Your task to perform on an android device: Open Google Image 0: 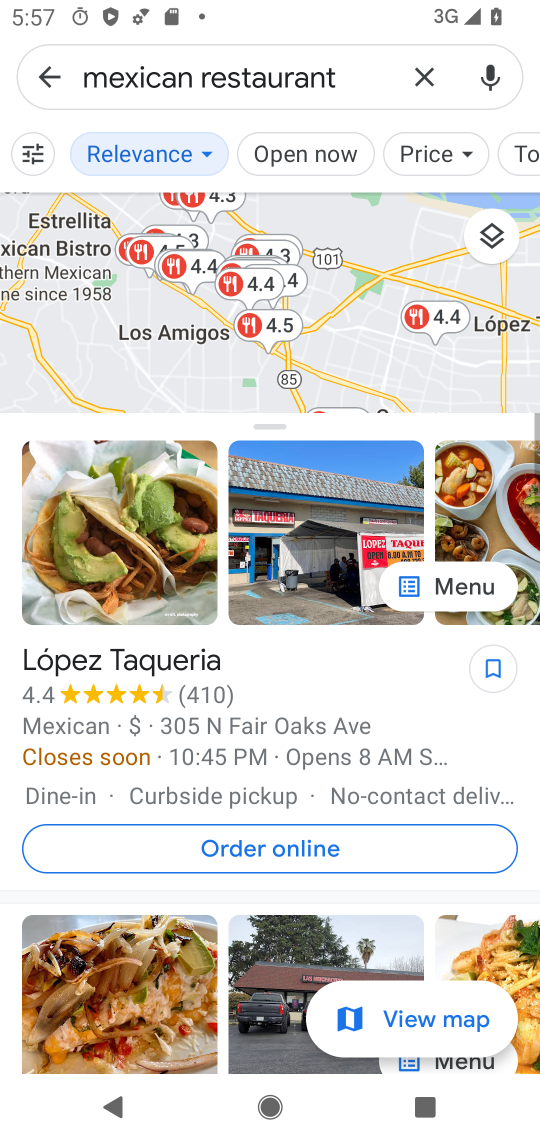
Step 0: press home button
Your task to perform on an android device: Open Google Image 1: 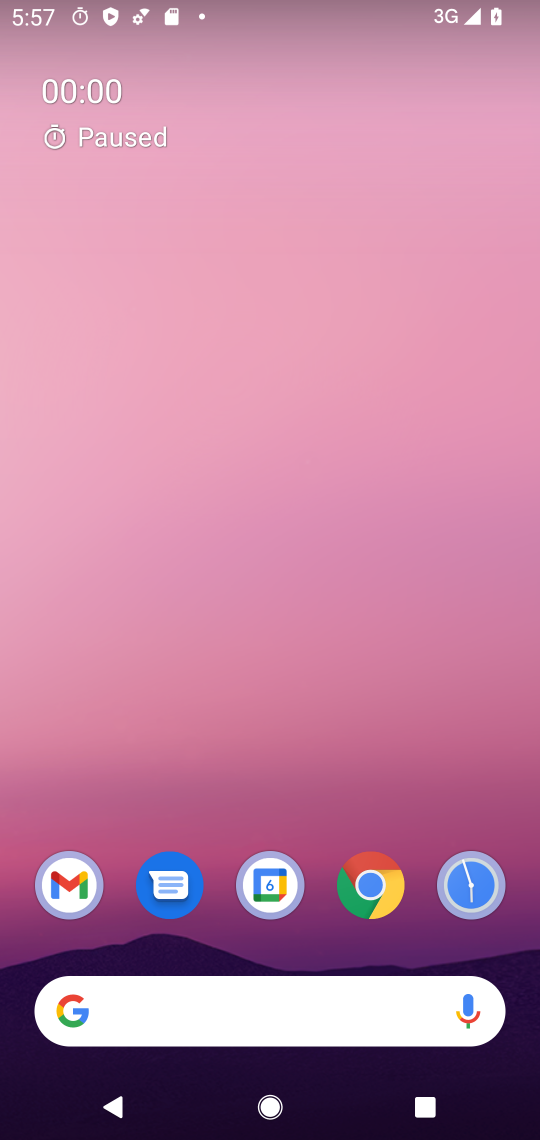
Step 1: drag from (535, 985) to (271, 82)
Your task to perform on an android device: Open Google Image 2: 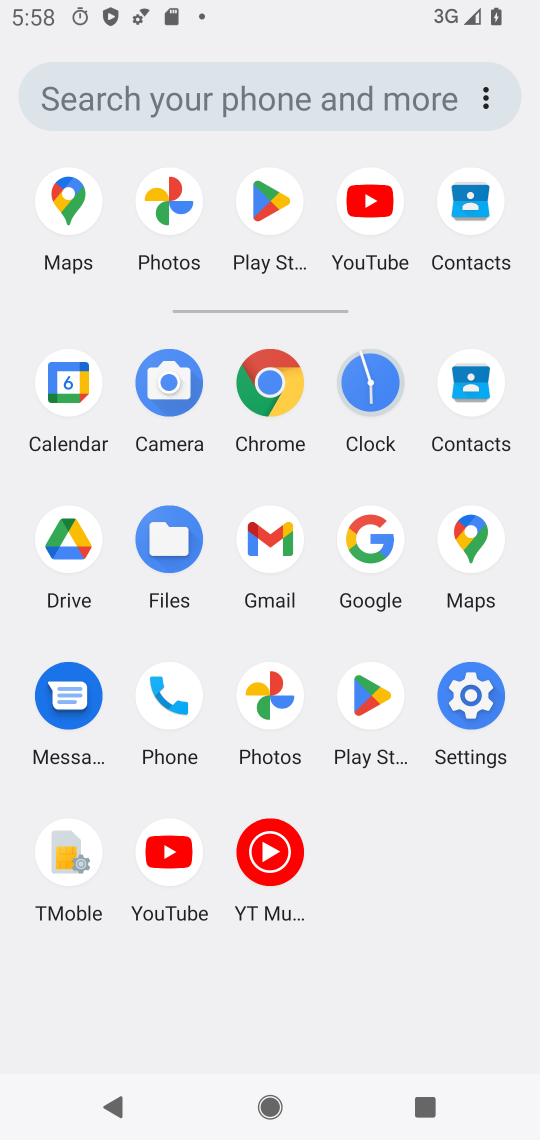
Step 2: click (373, 538)
Your task to perform on an android device: Open Google Image 3: 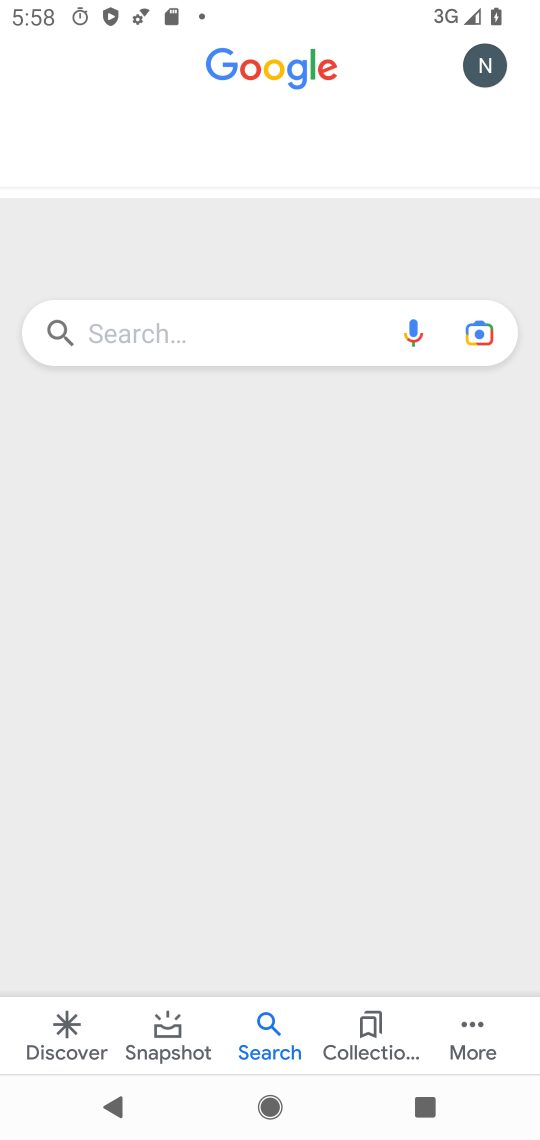
Step 3: task complete